Your task to perform on an android device: Open Maps and search for coffee Image 0: 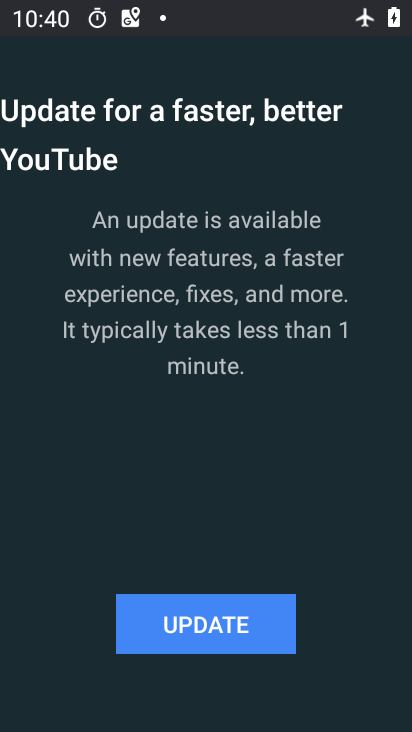
Step 0: press home button
Your task to perform on an android device: Open Maps and search for coffee Image 1: 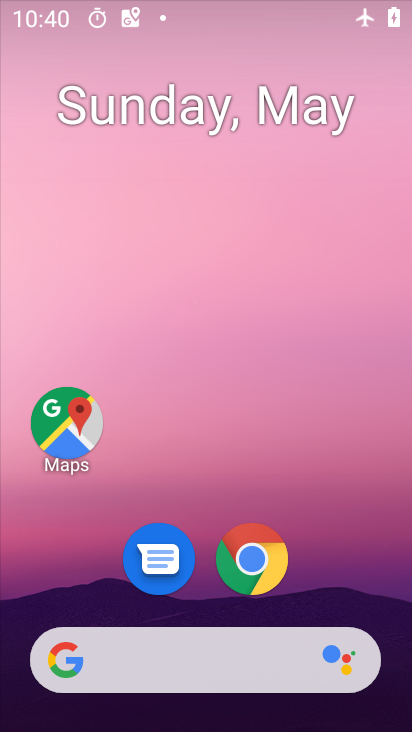
Step 1: drag from (351, 603) to (310, 135)
Your task to perform on an android device: Open Maps and search for coffee Image 2: 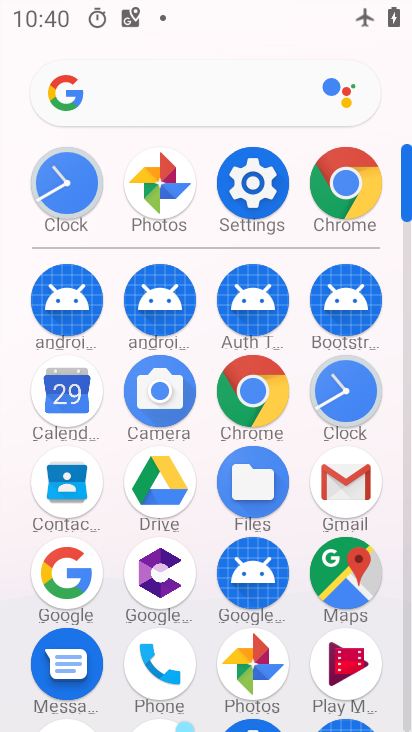
Step 2: click (335, 585)
Your task to perform on an android device: Open Maps and search for coffee Image 3: 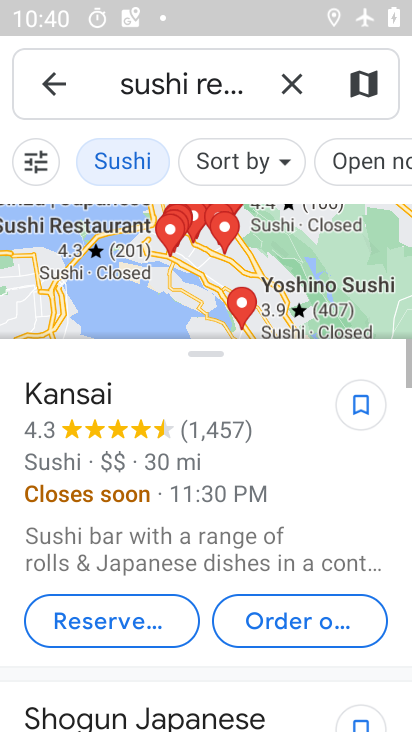
Step 3: click (291, 83)
Your task to perform on an android device: Open Maps and search for coffee Image 4: 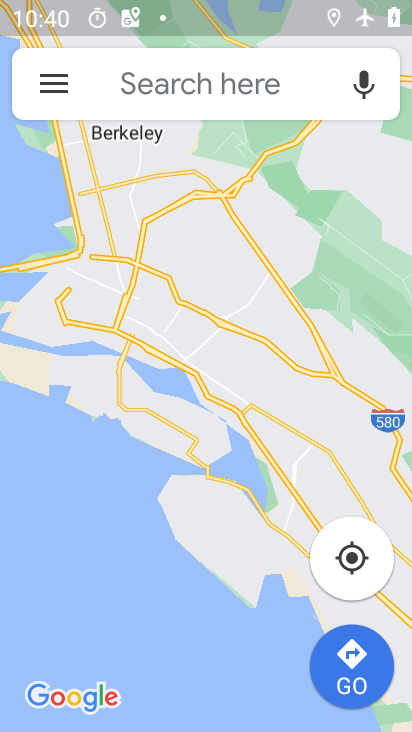
Step 4: click (192, 89)
Your task to perform on an android device: Open Maps and search for coffee Image 5: 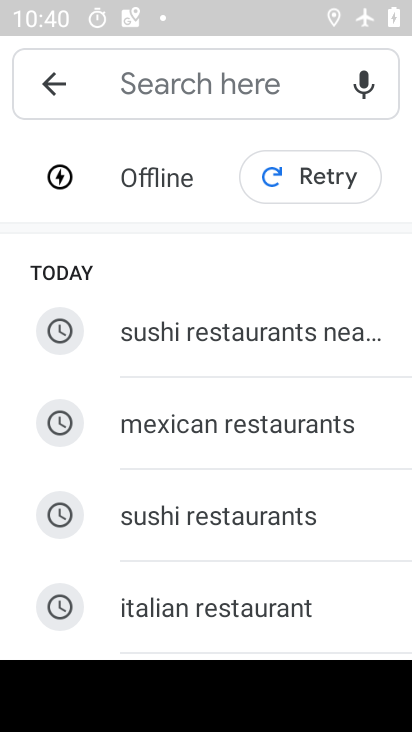
Step 5: type "coffee"
Your task to perform on an android device: Open Maps and search for coffee Image 6: 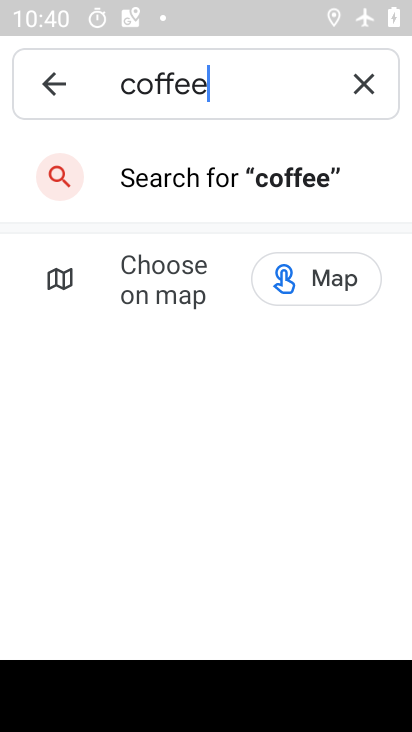
Step 6: click (190, 286)
Your task to perform on an android device: Open Maps and search for coffee Image 7: 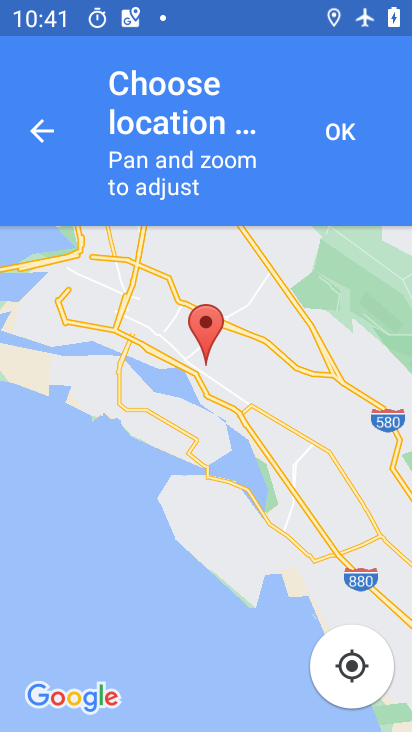
Step 7: task complete